Your task to perform on an android device: visit the assistant section in the google photos Image 0: 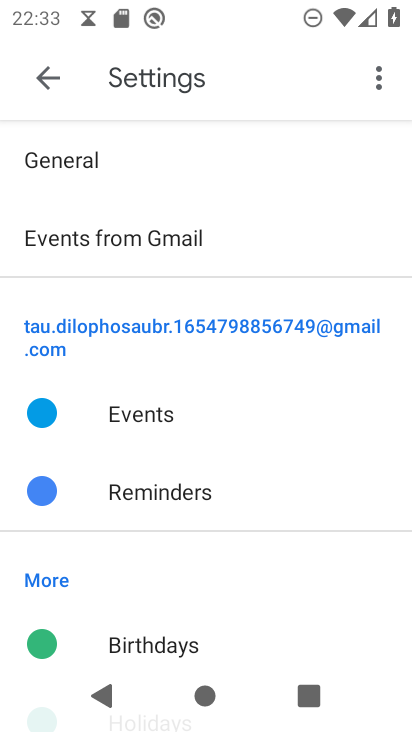
Step 0: press home button
Your task to perform on an android device: visit the assistant section in the google photos Image 1: 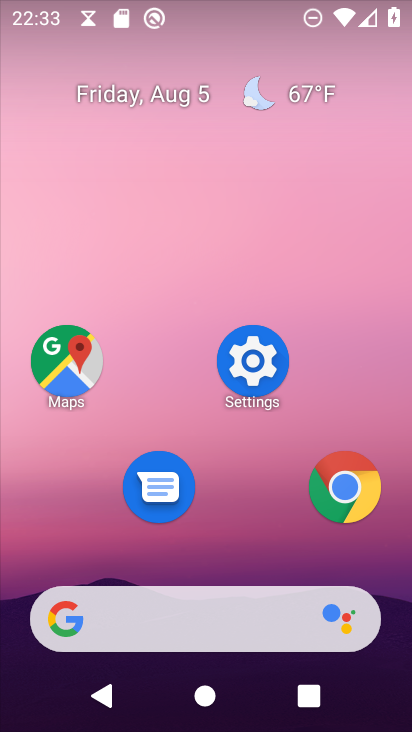
Step 1: drag from (186, 608) to (365, 70)
Your task to perform on an android device: visit the assistant section in the google photos Image 2: 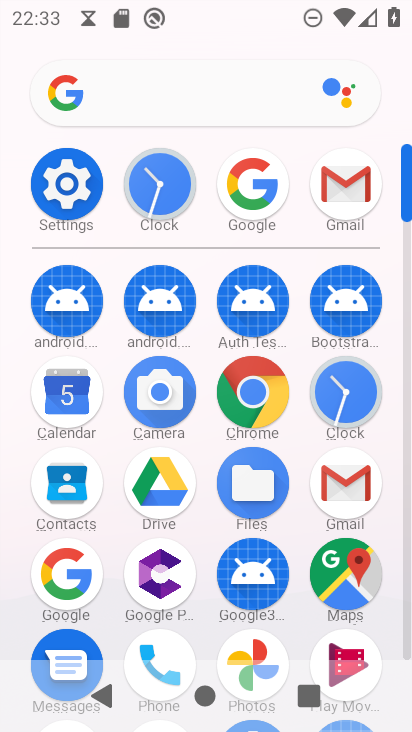
Step 2: drag from (211, 566) to (359, 97)
Your task to perform on an android device: visit the assistant section in the google photos Image 3: 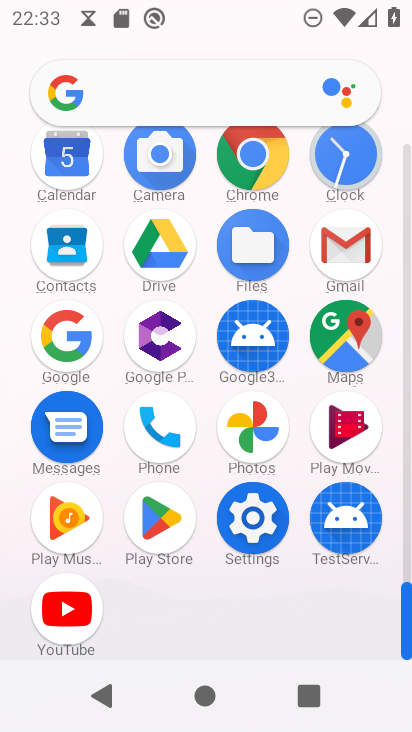
Step 3: click (252, 426)
Your task to perform on an android device: visit the assistant section in the google photos Image 4: 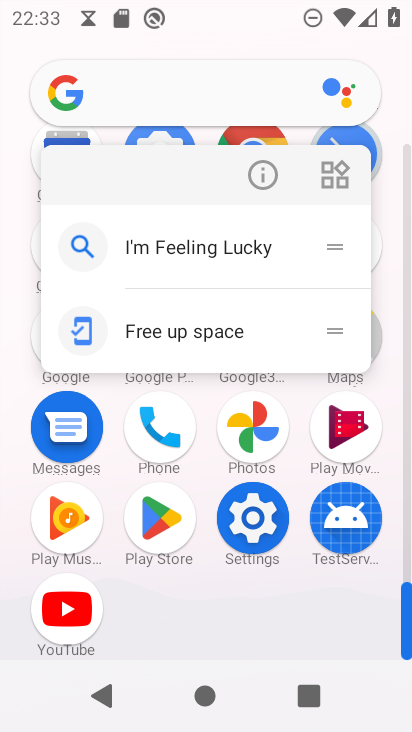
Step 4: click (255, 430)
Your task to perform on an android device: visit the assistant section in the google photos Image 5: 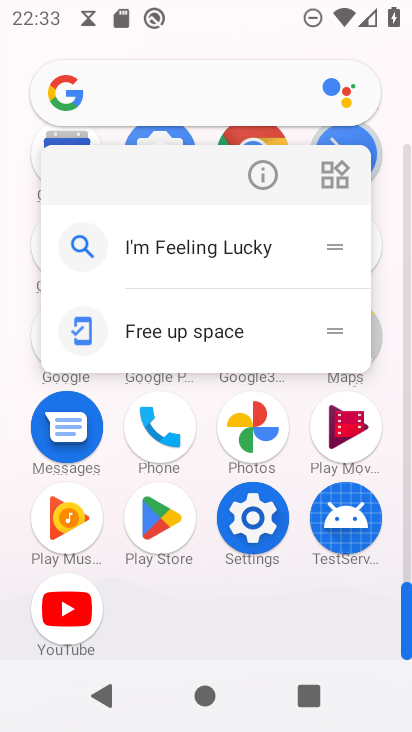
Step 5: click (256, 434)
Your task to perform on an android device: visit the assistant section in the google photos Image 6: 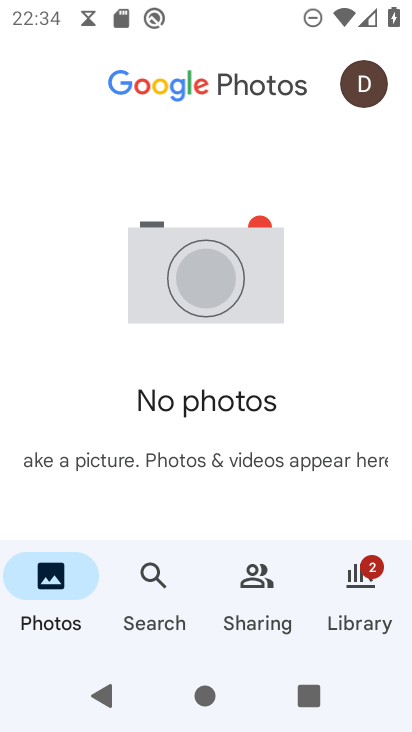
Step 6: click (363, 589)
Your task to perform on an android device: visit the assistant section in the google photos Image 7: 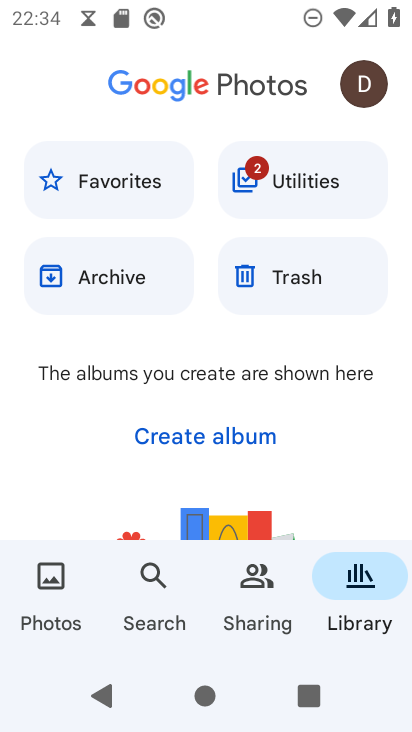
Step 7: task complete